Your task to perform on an android device: Go to network settings Image 0: 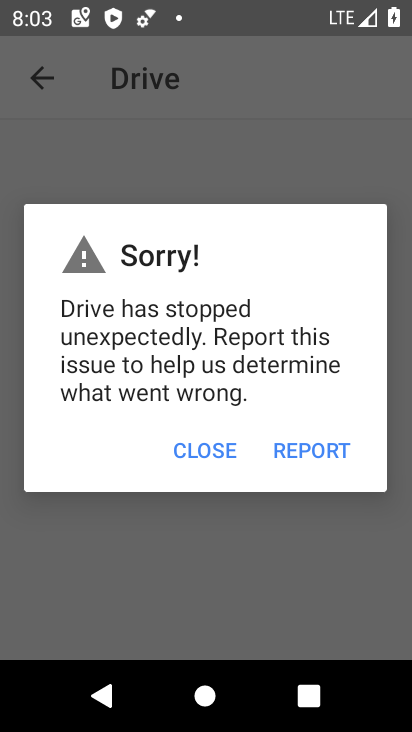
Step 0: press home button
Your task to perform on an android device: Go to network settings Image 1: 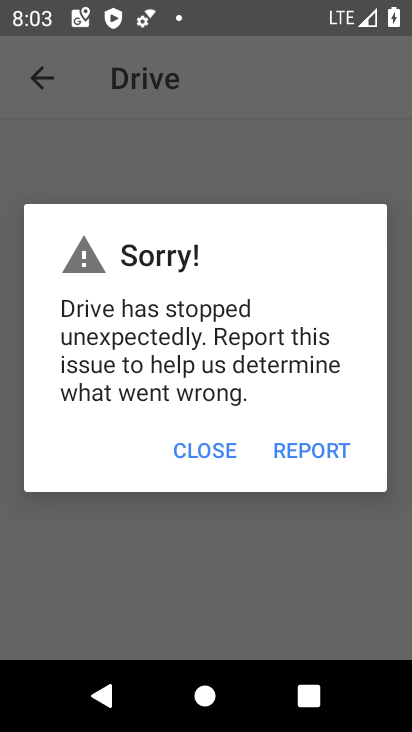
Step 1: press home button
Your task to perform on an android device: Go to network settings Image 2: 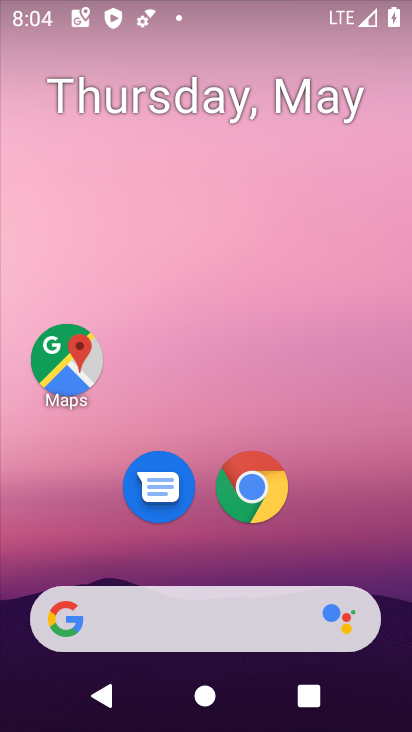
Step 2: drag from (197, 561) to (180, 2)
Your task to perform on an android device: Go to network settings Image 3: 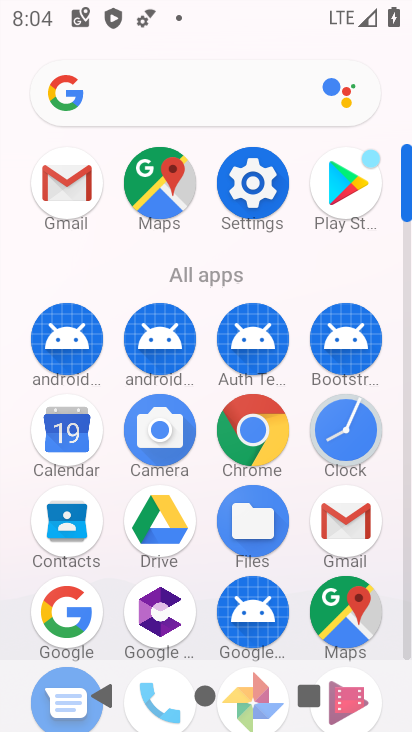
Step 3: click (266, 184)
Your task to perform on an android device: Go to network settings Image 4: 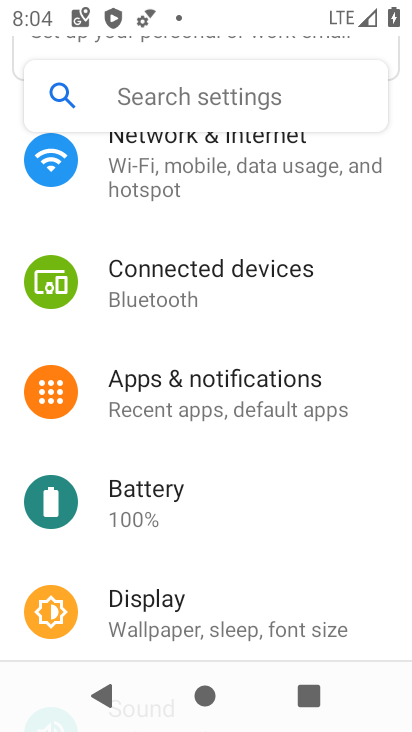
Step 4: drag from (180, 163) to (223, 445)
Your task to perform on an android device: Go to network settings Image 5: 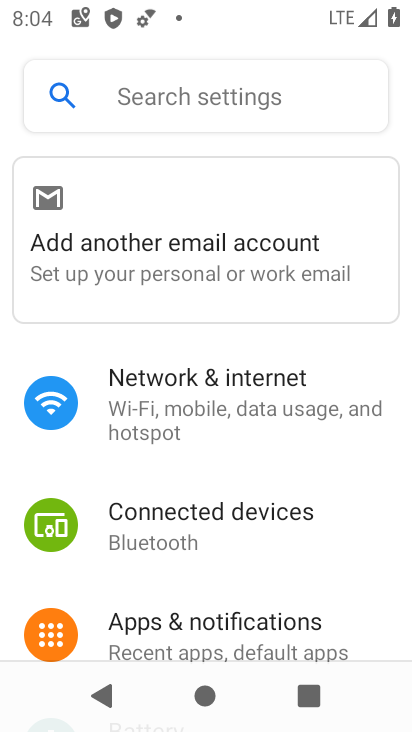
Step 5: click (191, 388)
Your task to perform on an android device: Go to network settings Image 6: 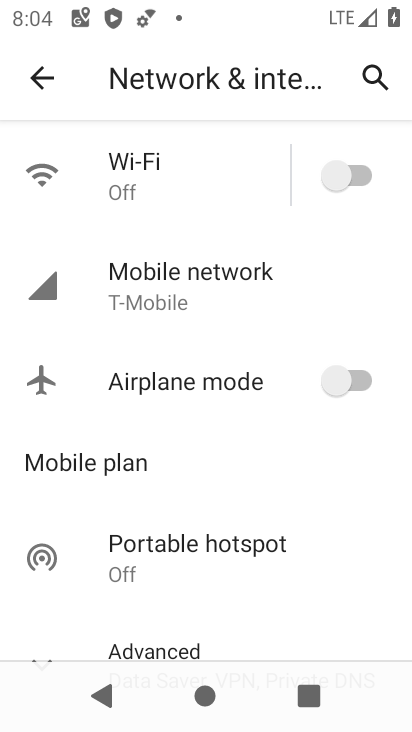
Step 6: click (280, 294)
Your task to perform on an android device: Go to network settings Image 7: 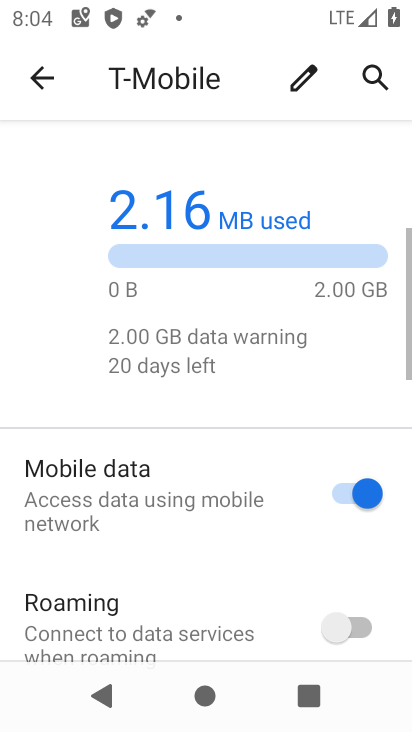
Step 7: task complete